Your task to perform on an android device: open a bookmark in the chrome app Image 0: 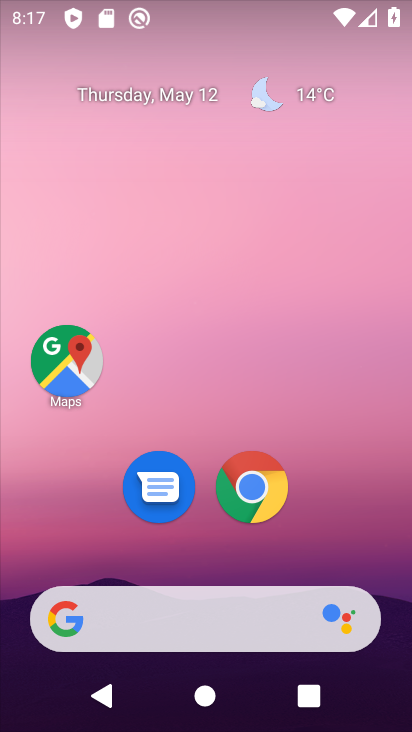
Step 0: press home button
Your task to perform on an android device: open a bookmark in the chrome app Image 1: 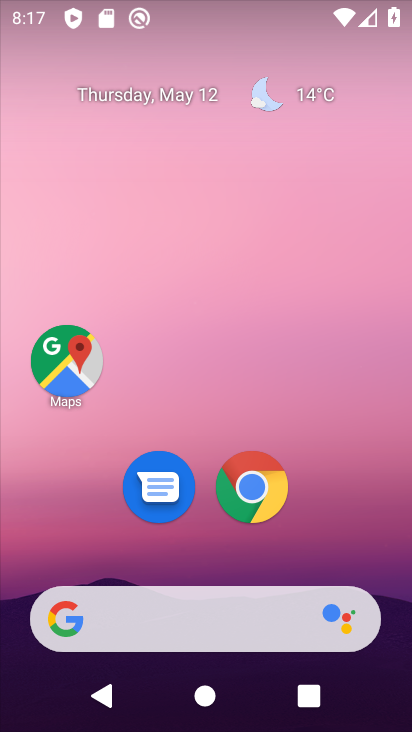
Step 1: click (242, 465)
Your task to perform on an android device: open a bookmark in the chrome app Image 2: 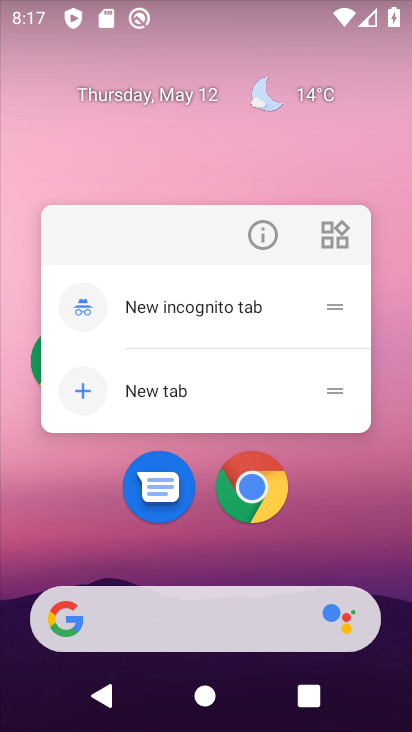
Step 2: click (251, 490)
Your task to perform on an android device: open a bookmark in the chrome app Image 3: 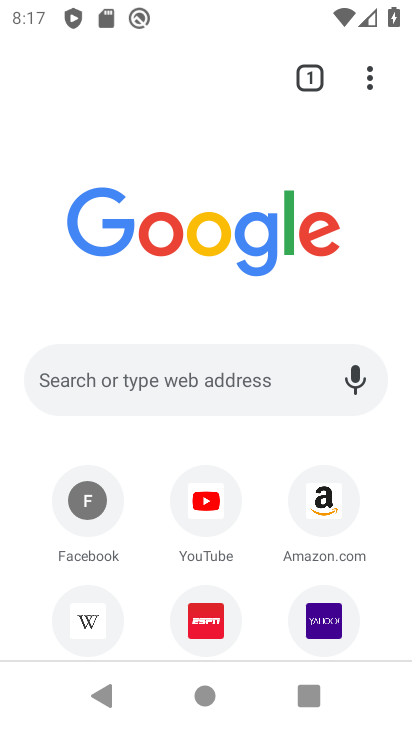
Step 3: click (359, 83)
Your task to perform on an android device: open a bookmark in the chrome app Image 4: 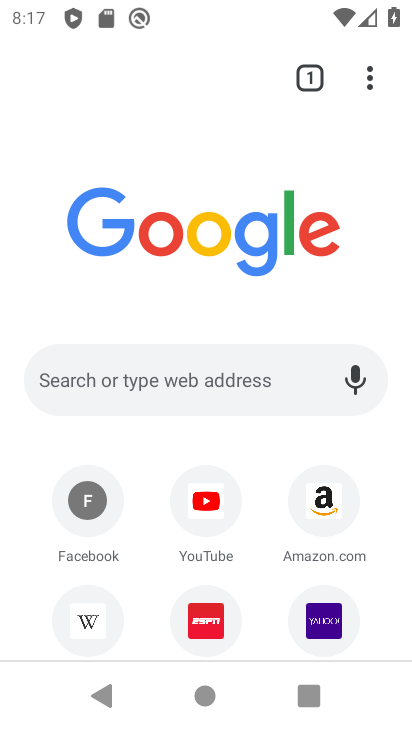
Step 4: click (373, 79)
Your task to perform on an android device: open a bookmark in the chrome app Image 5: 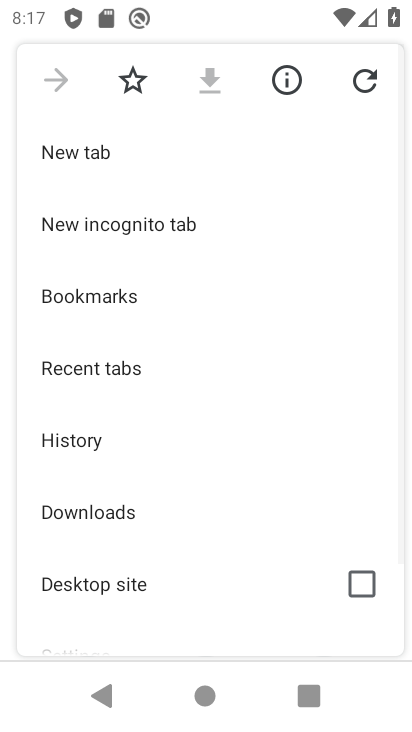
Step 5: click (101, 298)
Your task to perform on an android device: open a bookmark in the chrome app Image 6: 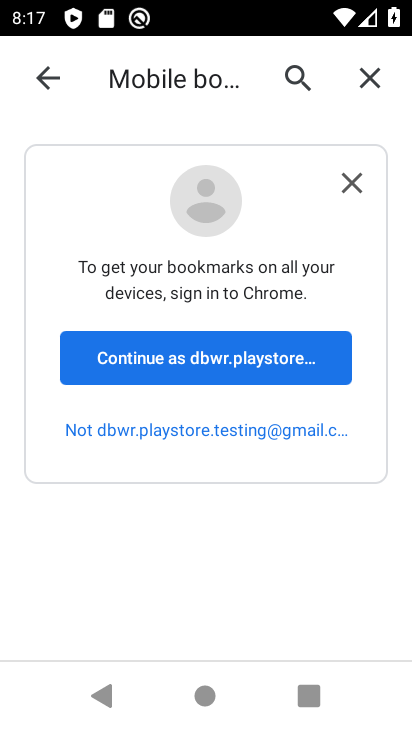
Step 6: click (359, 183)
Your task to perform on an android device: open a bookmark in the chrome app Image 7: 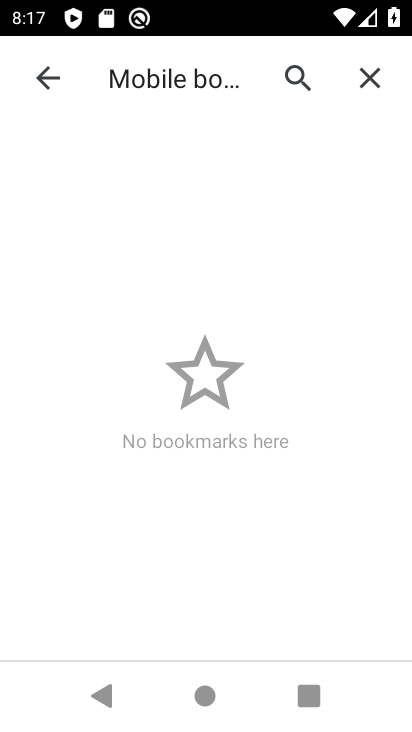
Step 7: task complete